Your task to perform on an android device: Do I have any events this weekend? Image 0: 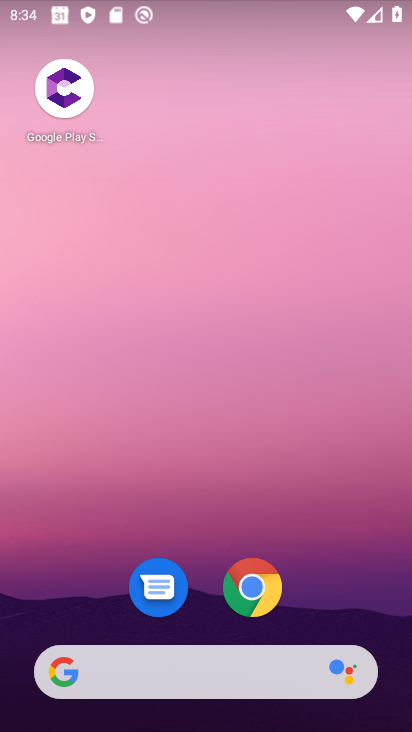
Step 0: drag from (358, 554) to (326, 142)
Your task to perform on an android device: Do I have any events this weekend? Image 1: 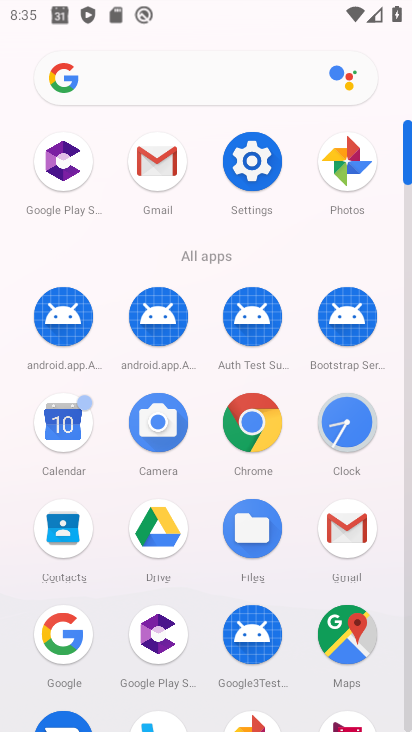
Step 1: click (74, 413)
Your task to perform on an android device: Do I have any events this weekend? Image 2: 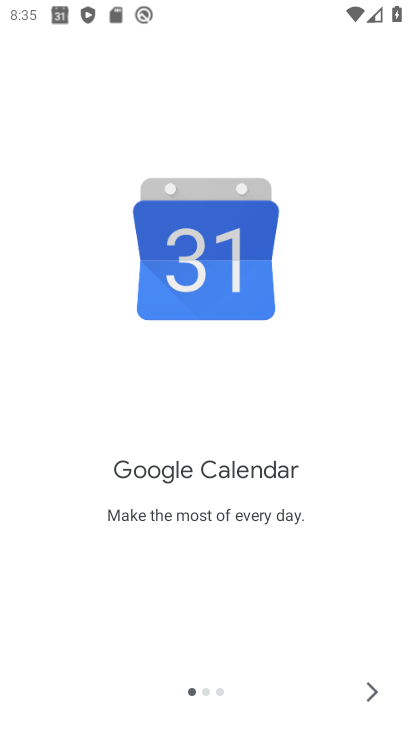
Step 2: click (366, 689)
Your task to perform on an android device: Do I have any events this weekend? Image 3: 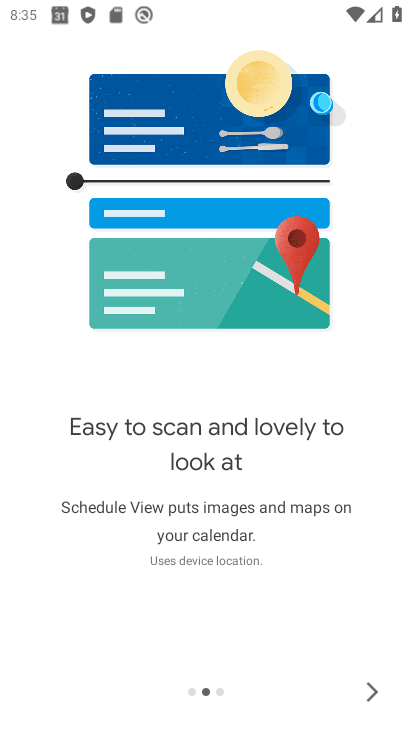
Step 3: click (366, 689)
Your task to perform on an android device: Do I have any events this weekend? Image 4: 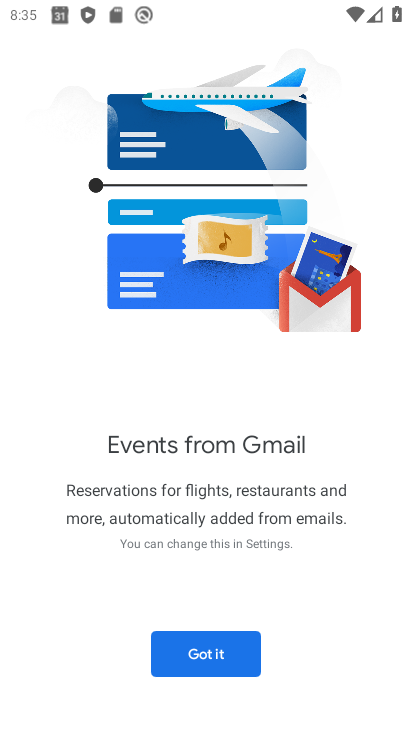
Step 4: click (242, 658)
Your task to perform on an android device: Do I have any events this weekend? Image 5: 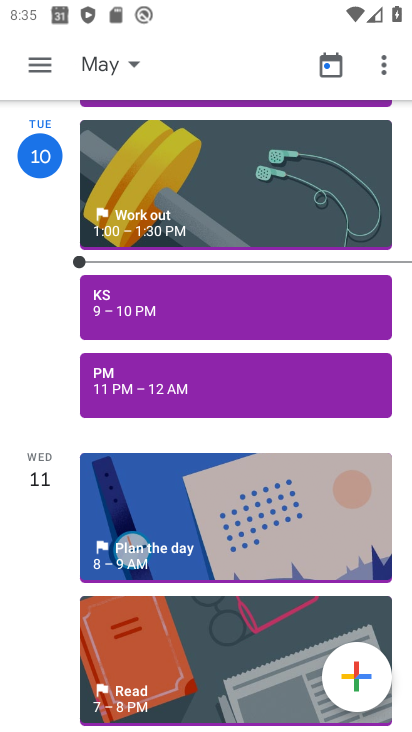
Step 5: click (122, 63)
Your task to perform on an android device: Do I have any events this weekend? Image 6: 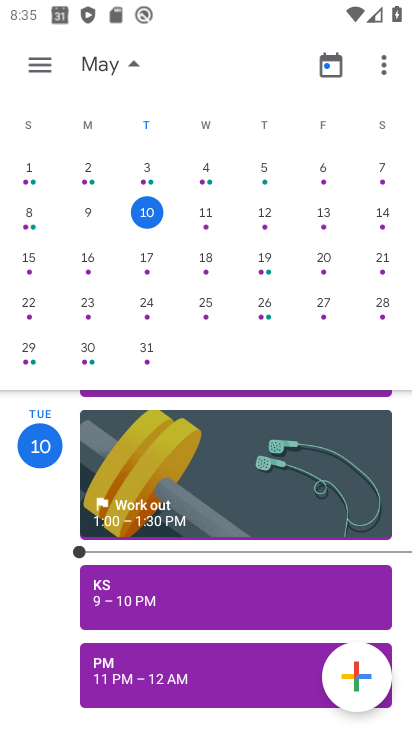
Step 6: task complete